Your task to perform on an android device: toggle notifications settings in the gmail app Image 0: 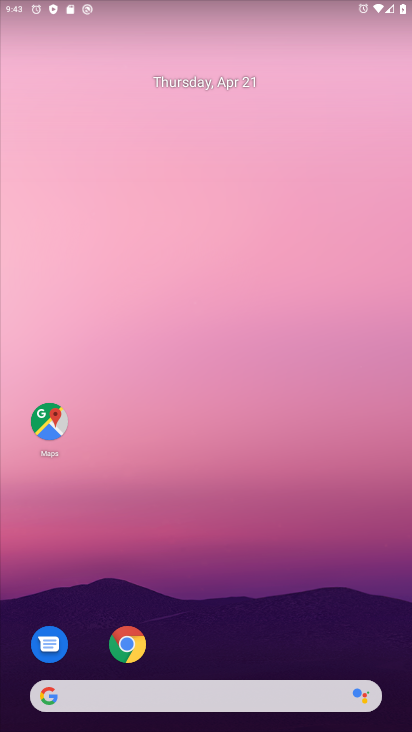
Step 0: drag from (198, 454) to (267, 33)
Your task to perform on an android device: toggle notifications settings in the gmail app Image 1: 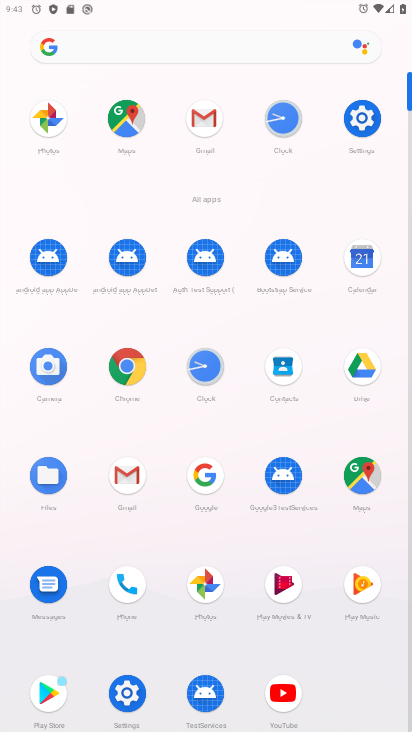
Step 1: click (211, 124)
Your task to perform on an android device: toggle notifications settings in the gmail app Image 2: 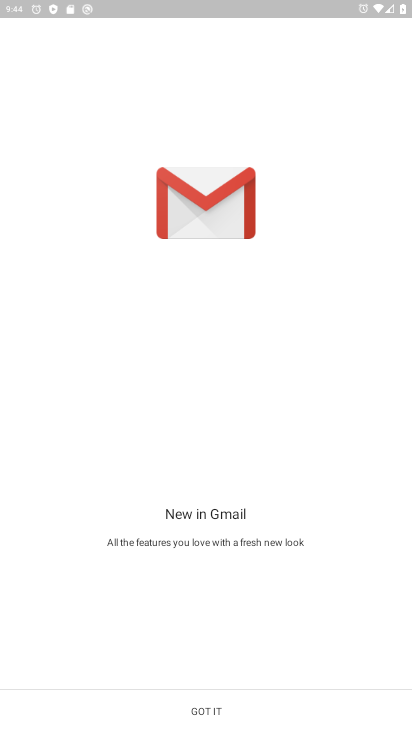
Step 2: click (212, 708)
Your task to perform on an android device: toggle notifications settings in the gmail app Image 3: 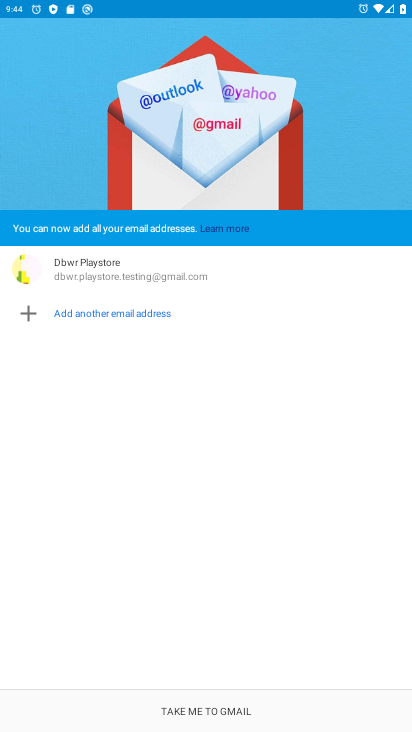
Step 3: click (212, 708)
Your task to perform on an android device: toggle notifications settings in the gmail app Image 4: 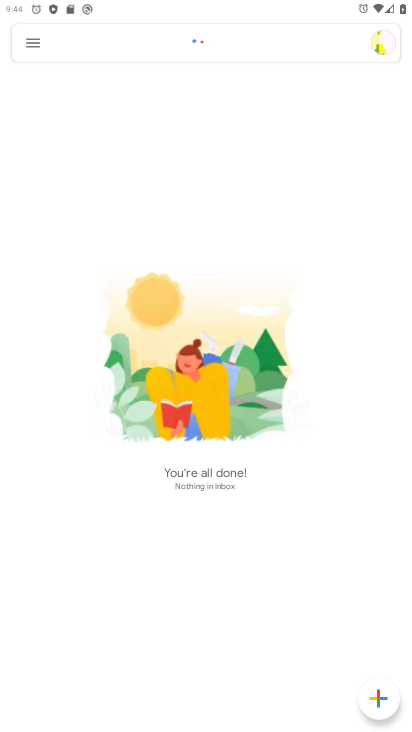
Step 4: click (31, 31)
Your task to perform on an android device: toggle notifications settings in the gmail app Image 5: 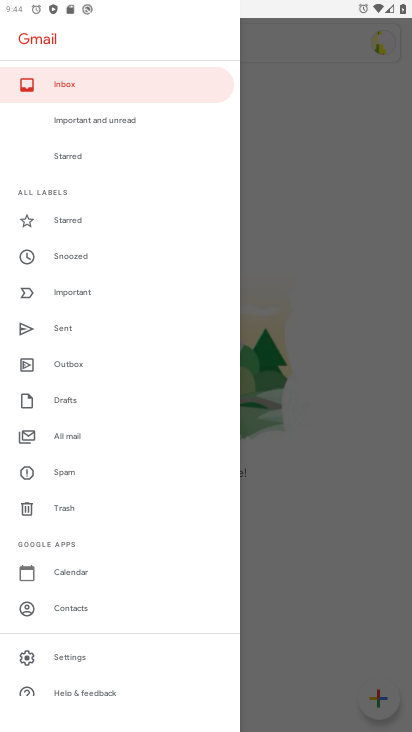
Step 5: click (84, 654)
Your task to perform on an android device: toggle notifications settings in the gmail app Image 6: 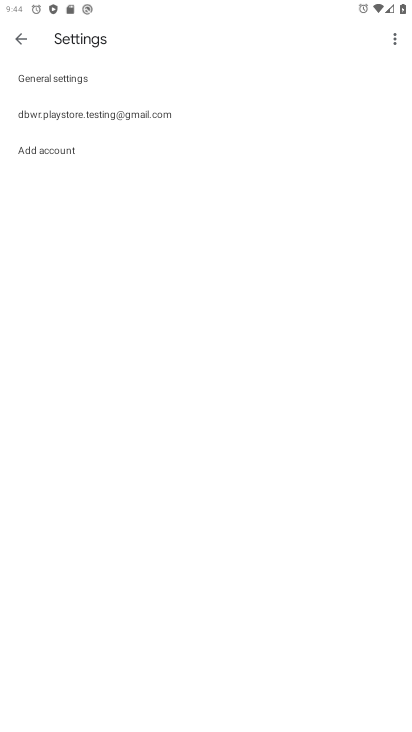
Step 6: click (105, 68)
Your task to perform on an android device: toggle notifications settings in the gmail app Image 7: 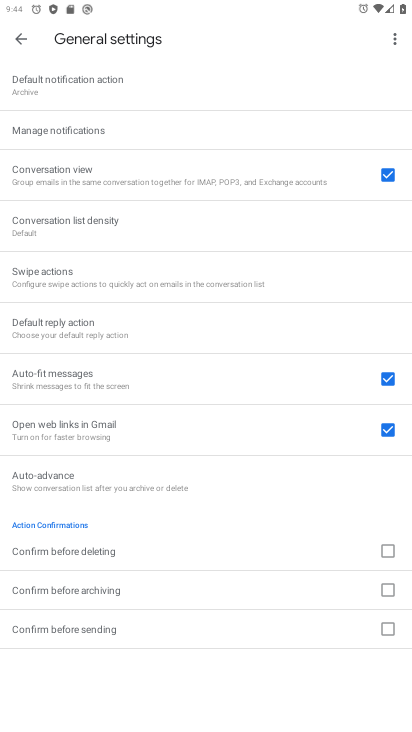
Step 7: click (116, 148)
Your task to perform on an android device: toggle notifications settings in the gmail app Image 8: 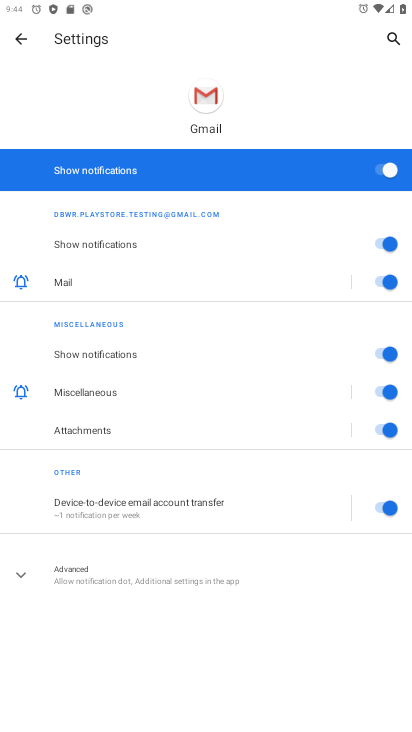
Step 8: click (389, 174)
Your task to perform on an android device: toggle notifications settings in the gmail app Image 9: 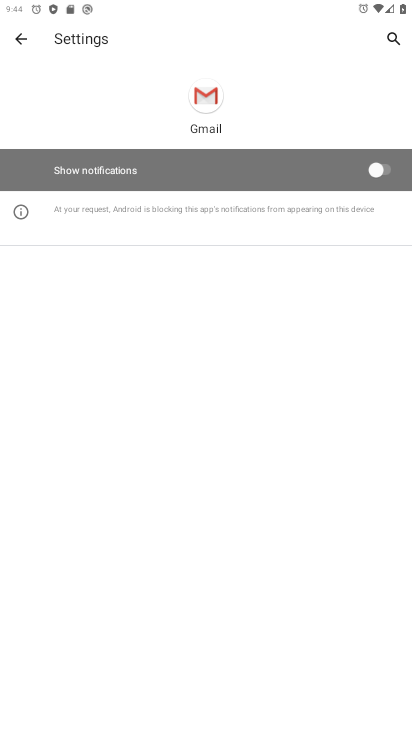
Step 9: task complete